Your task to perform on an android device: Do I have any events tomorrow? Image 0: 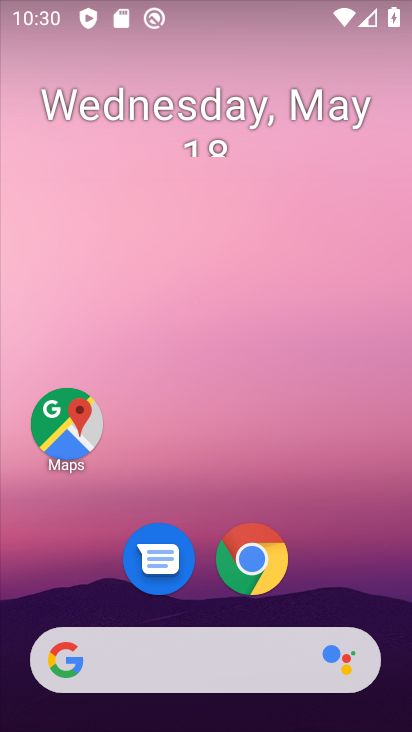
Step 0: drag from (311, 571) to (196, 11)
Your task to perform on an android device: Do I have any events tomorrow? Image 1: 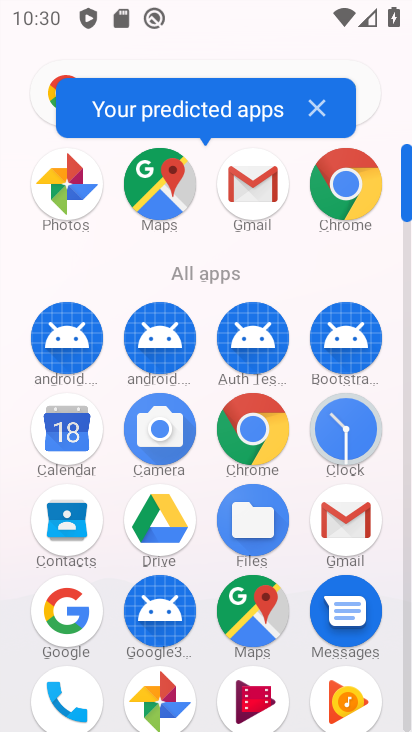
Step 1: click (56, 467)
Your task to perform on an android device: Do I have any events tomorrow? Image 2: 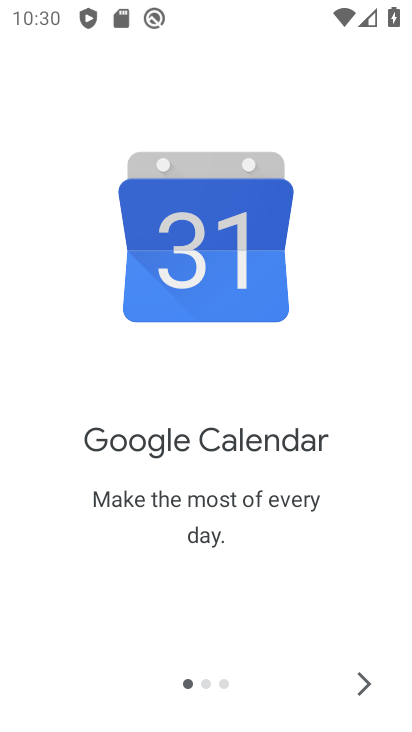
Step 2: click (359, 698)
Your task to perform on an android device: Do I have any events tomorrow? Image 3: 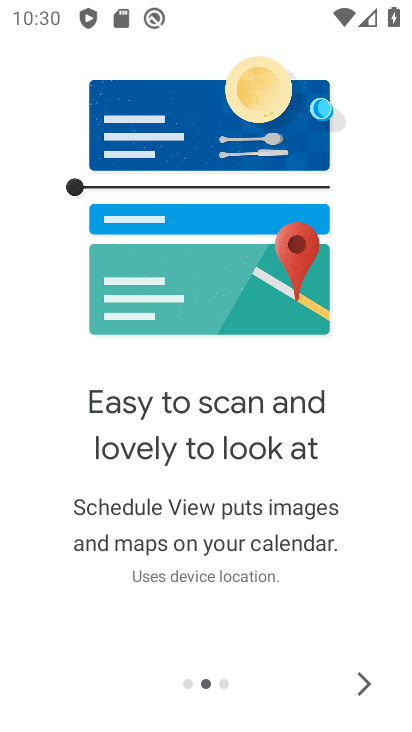
Step 3: click (362, 693)
Your task to perform on an android device: Do I have any events tomorrow? Image 4: 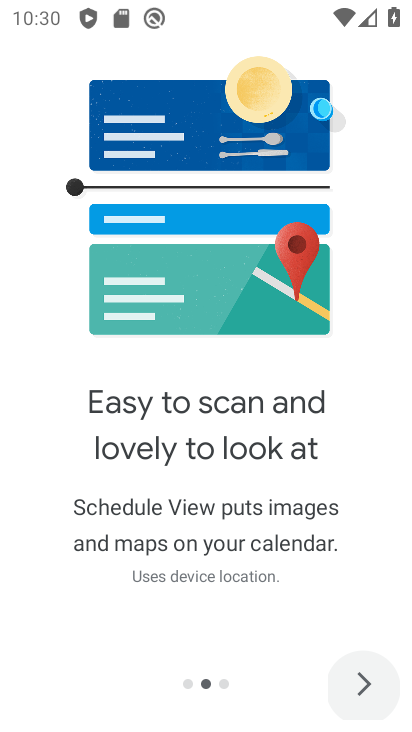
Step 4: click (362, 693)
Your task to perform on an android device: Do I have any events tomorrow? Image 5: 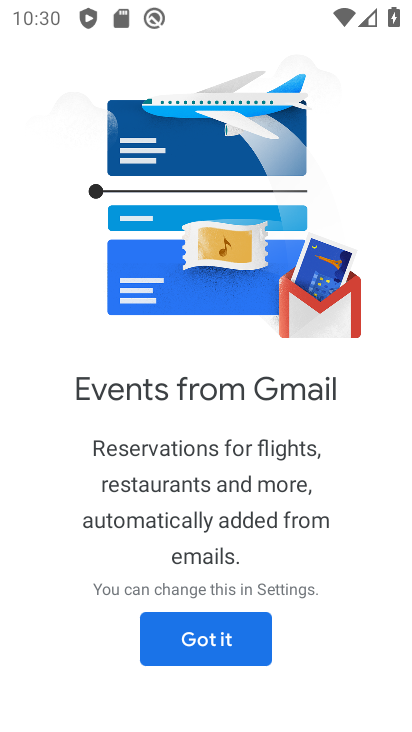
Step 5: click (198, 647)
Your task to perform on an android device: Do I have any events tomorrow? Image 6: 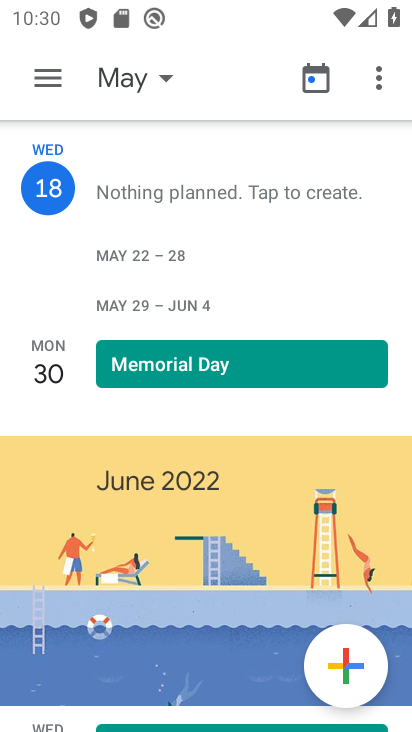
Step 6: press home button
Your task to perform on an android device: Do I have any events tomorrow? Image 7: 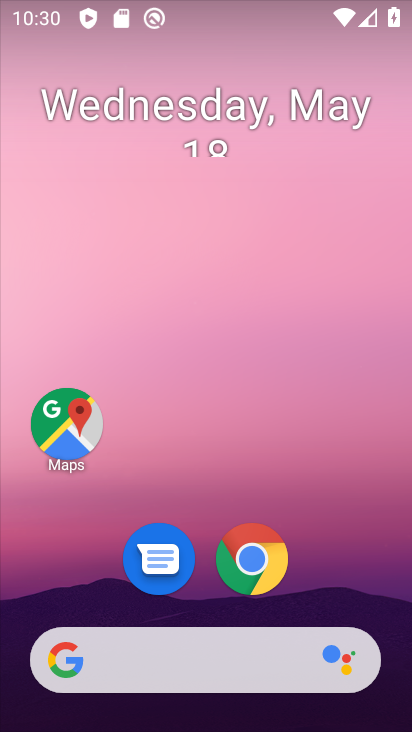
Step 7: drag from (272, 471) to (244, 63)
Your task to perform on an android device: Do I have any events tomorrow? Image 8: 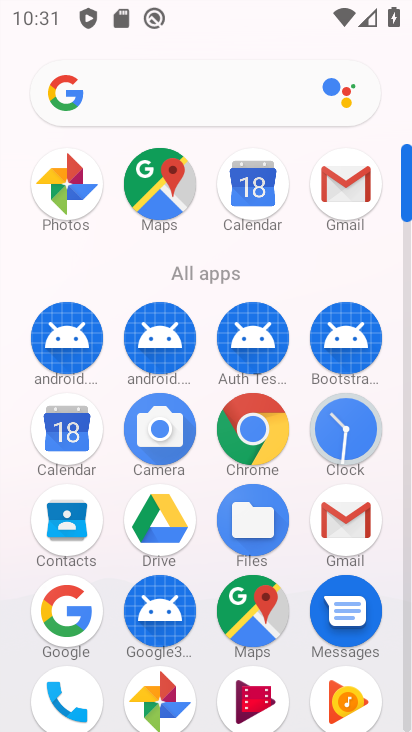
Step 8: click (60, 459)
Your task to perform on an android device: Do I have any events tomorrow? Image 9: 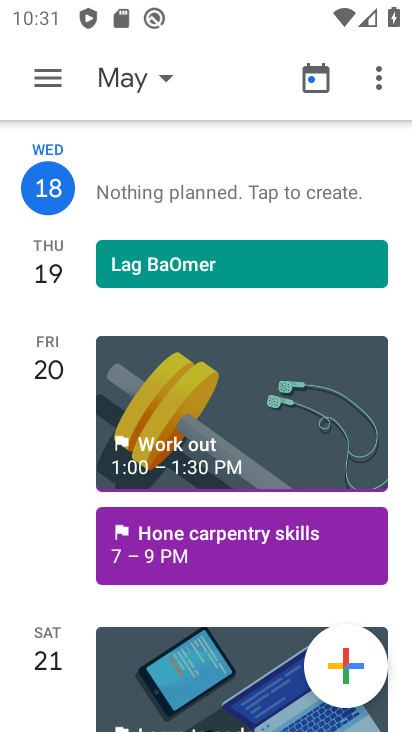
Step 9: task complete